Your task to perform on an android device: turn on the 12-hour format for clock Image 0: 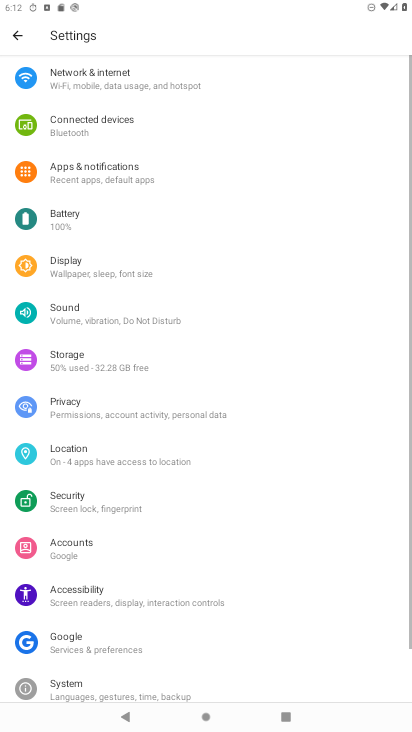
Step 0: press home button
Your task to perform on an android device: turn on the 12-hour format for clock Image 1: 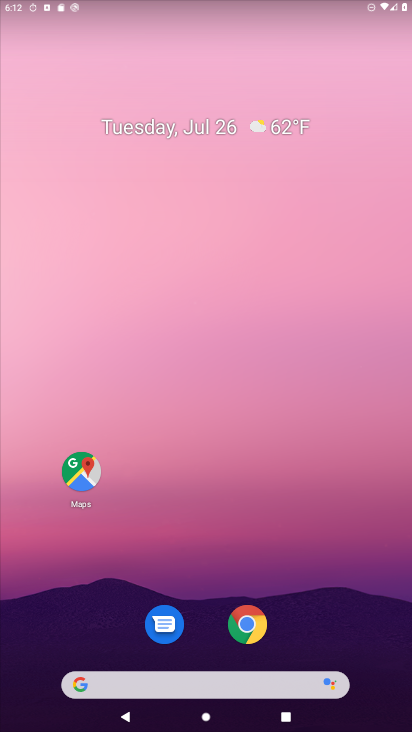
Step 1: drag from (242, 664) to (228, 33)
Your task to perform on an android device: turn on the 12-hour format for clock Image 2: 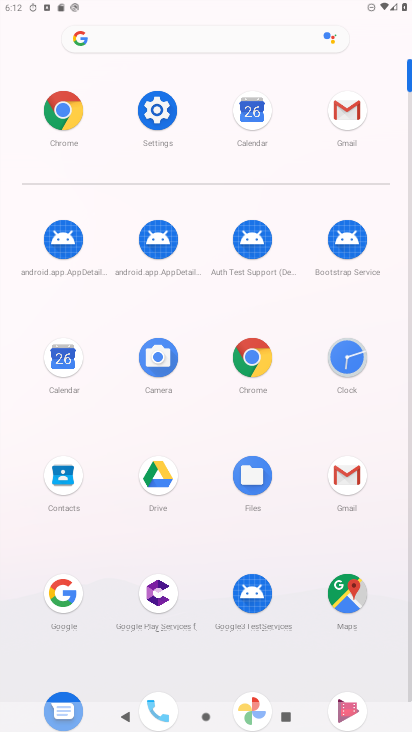
Step 2: click (337, 378)
Your task to perform on an android device: turn on the 12-hour format for clock Image 3: 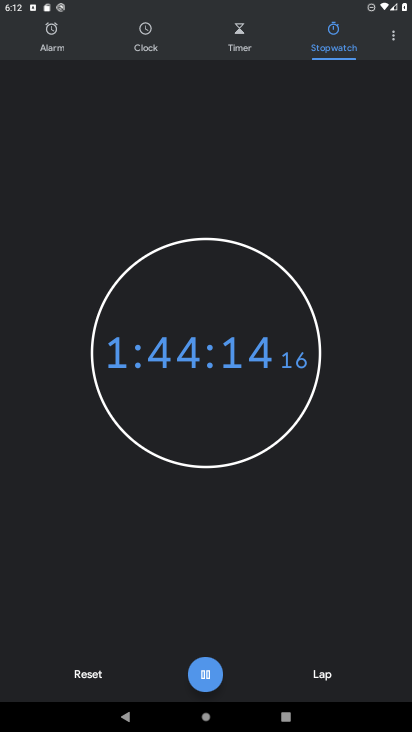
Step 3: click (397, 38)
Your task to perform on an android device: turn on the 12-hour format for clock Image 4: 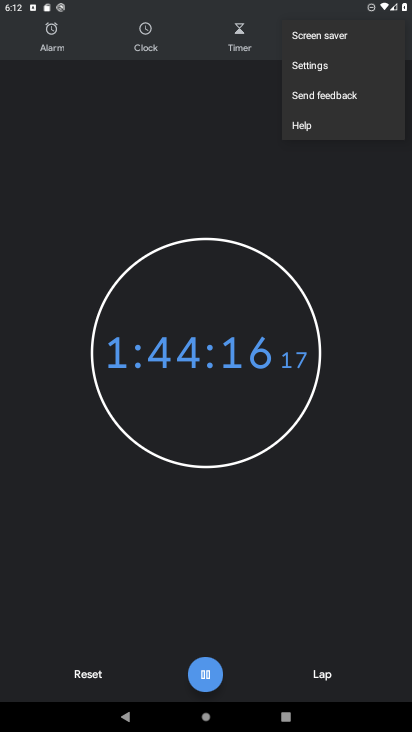
Step 4: click (320, 63)
Your task to perform on an android device: turn on the 12-hour format for clock Image 5: 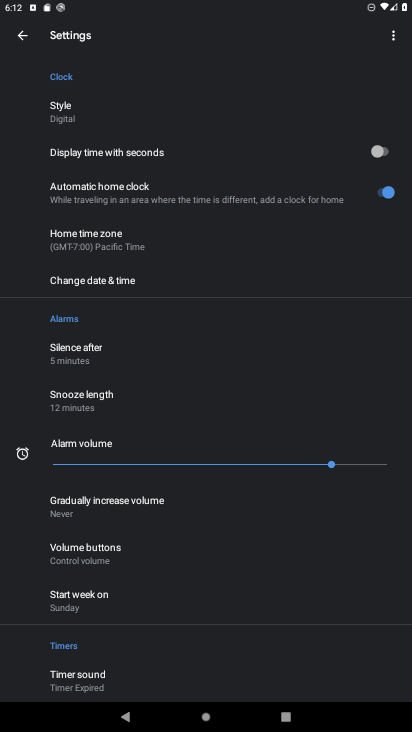
Step 5: click (97, 273)
Your task to perform on an android device: turn on the 12-hour format for clock Image 6: 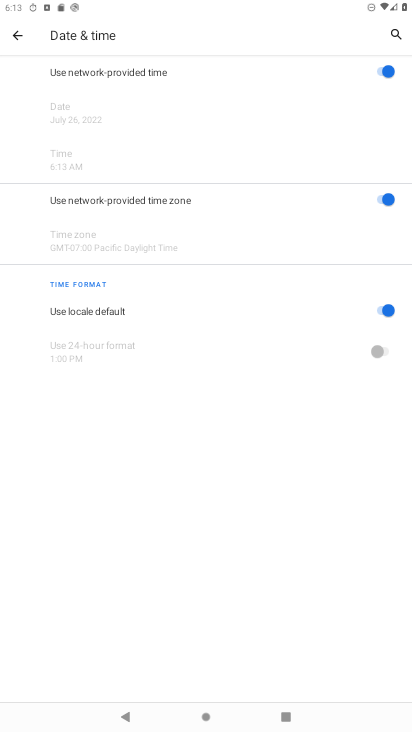
Step 6: click (379, 306)
Your task to perform on an android device: turn on the 12-hour format for clock Image 7: 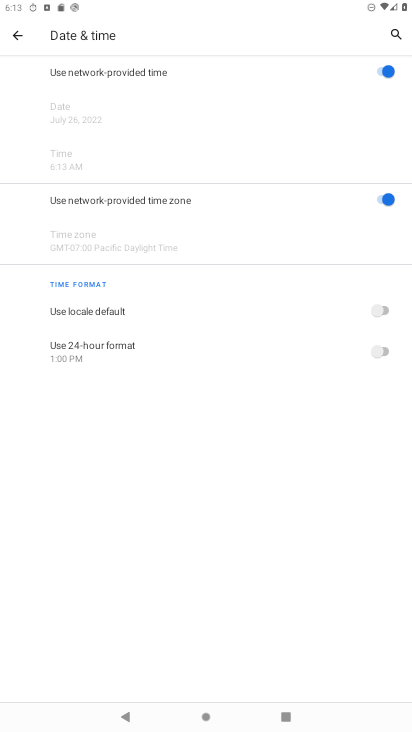
Step 7: task complete